Your task to perform on an android device: Open Youtube and go to "Your channel" Image 0: 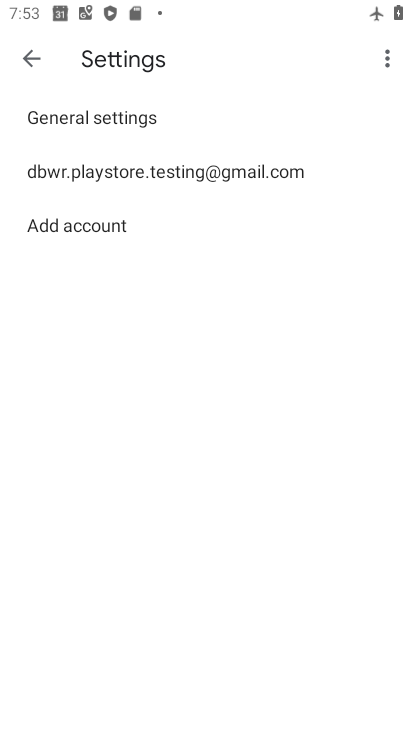
Step 0: press home button
Your task to perform on an android device: Open Youtube and go to "Your channel" Image 1: 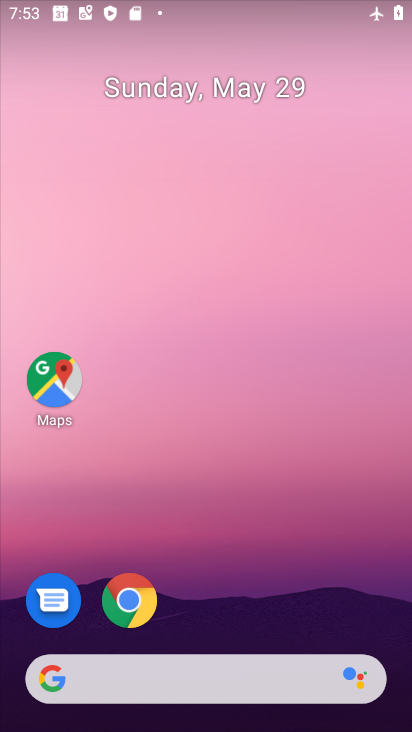
Step 1: drag from (223, 627) to (160, 7)
Your task to perform on an android device: Open Youtube and go to "Your channel" Image 2: 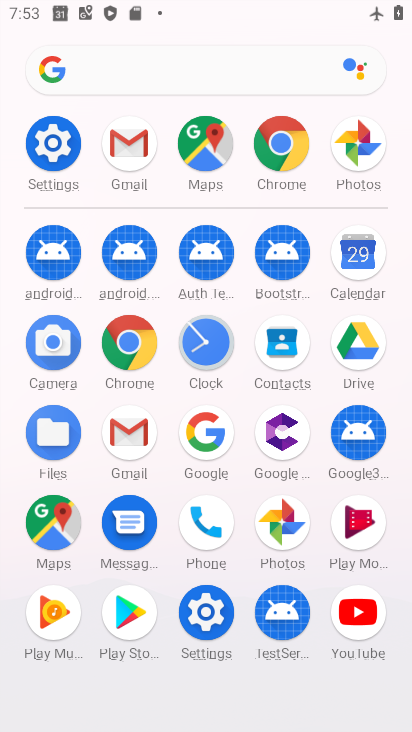
Step 2: click (360, 622)
Your task to perform on an android device: Open Youtube and go to "Your channel" Image 3: 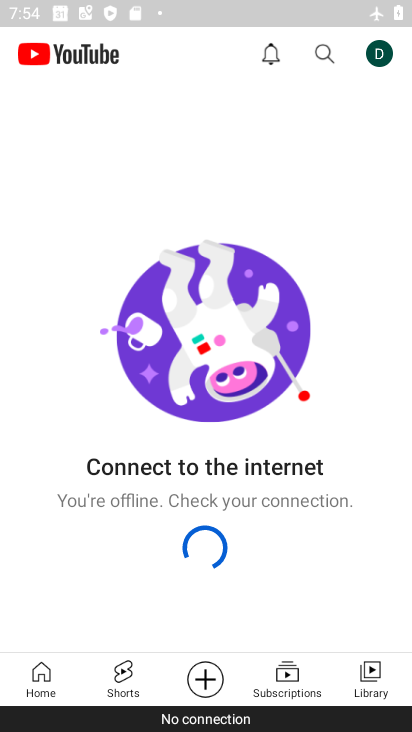
Step 3: click (384, 39)
Your task to perform on an android device: Open Youtube and go to "Your channel" Image 4: 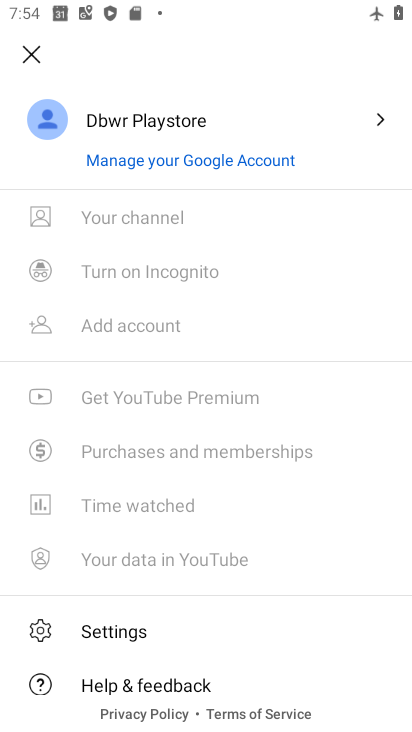
Step 4: click (153, 216)
Your task to perform on an android device: Open Youtube and go to "Your channel" Image 5: 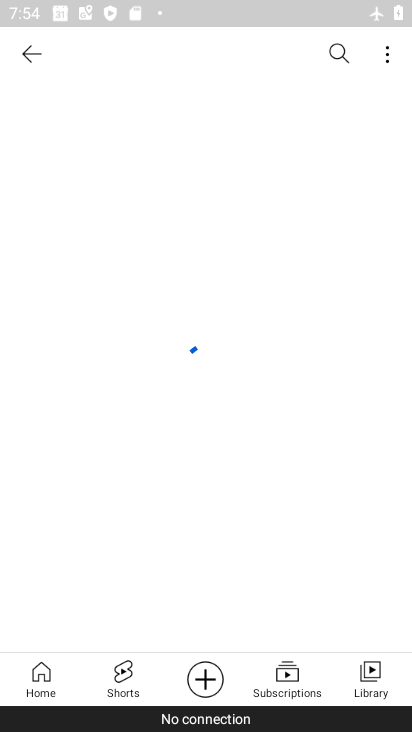
Step 5: task complete